Your task to perform on an android device: install app "PlayWell" Image 0: 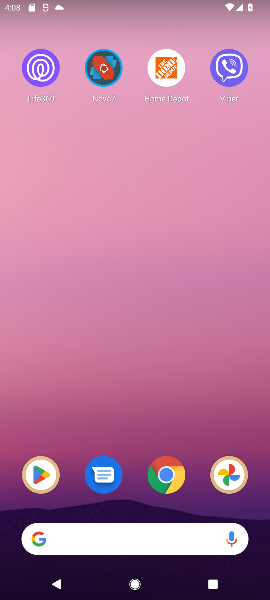
Step 0: drag from (98, 428) to (107, 57)
Your task to perform on an android device: install app "PlayWell" Image 1: 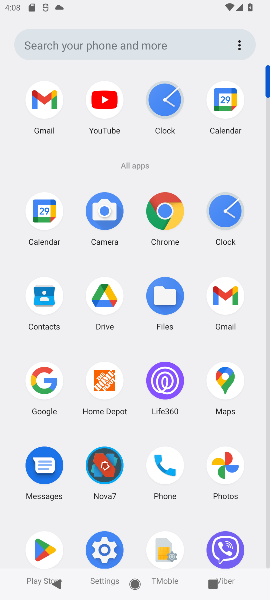
Step 1: click (41, 552)
Your task to perform on an android device: install app "PlayWell" Image 2: 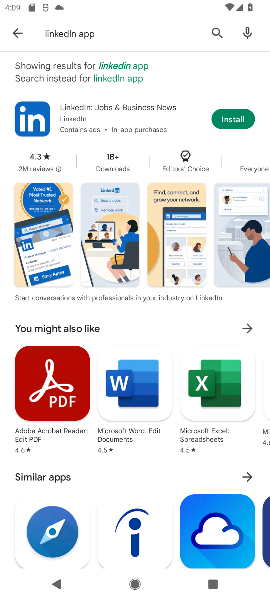
Step 2: click (228, 123)
Your task to perform on an android device: install app "PlayWell" Image 3: 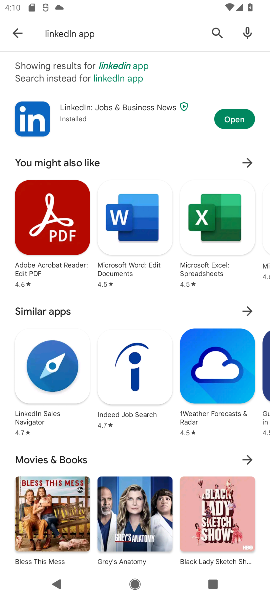
Step 3: task complete